Your task to perform on an android device: set the timer Image 0: 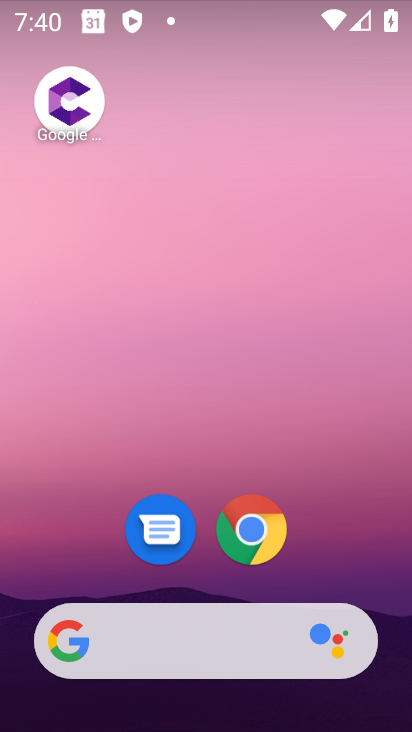
Step 0: drag from (29, 584) to (230, 139)
Your task to perform on an android device: set the timer Image 1: 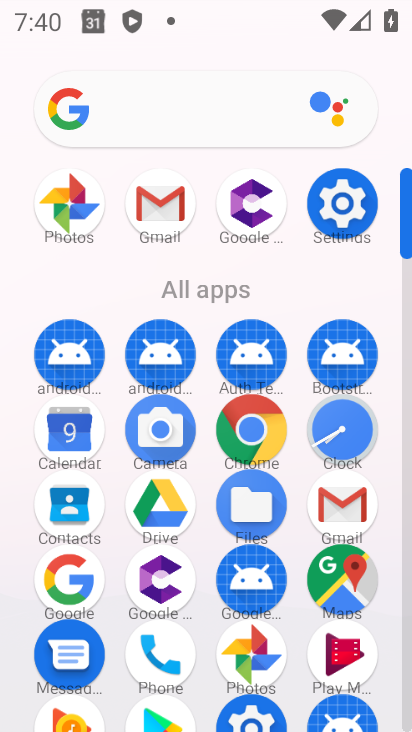
Step 1: click (339, 429)
Your task to perform on an android device: set the timer Image 2: 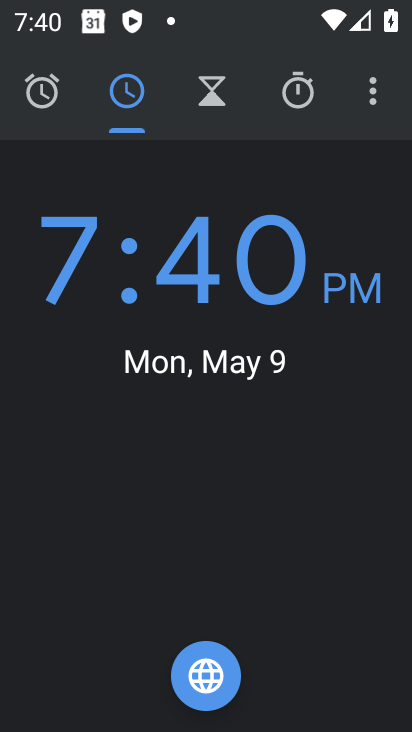
Step 2: click (196, 101)
Your task to perform on an android device: set the timer Image 3: 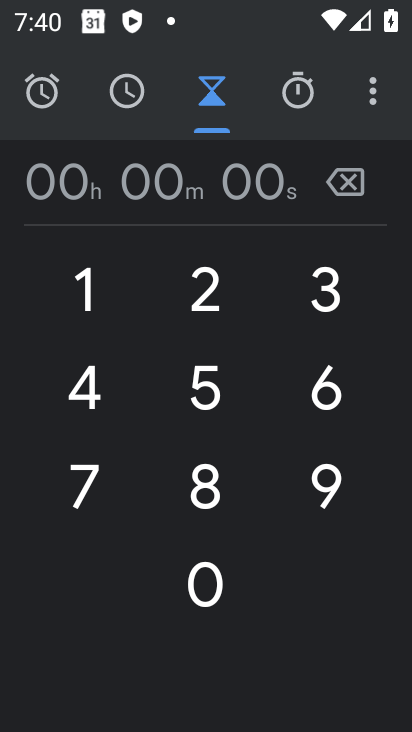
Step 3: click (203, 577)
Your task to perform on an android device: set the timer Image 4: 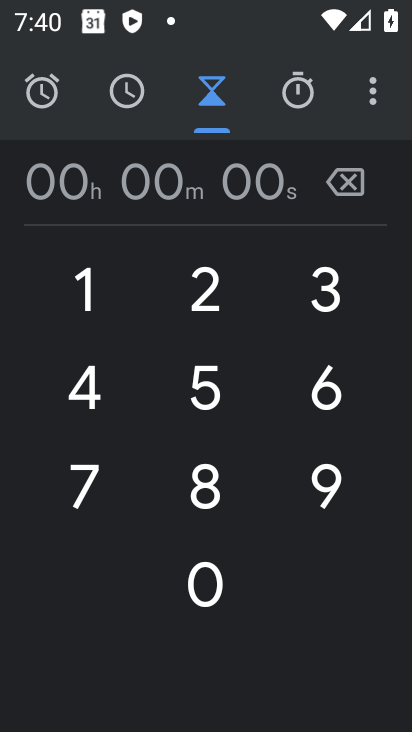
Step 4: click (206, 551)
Your task to perform on an android device: set the timer Image 5: 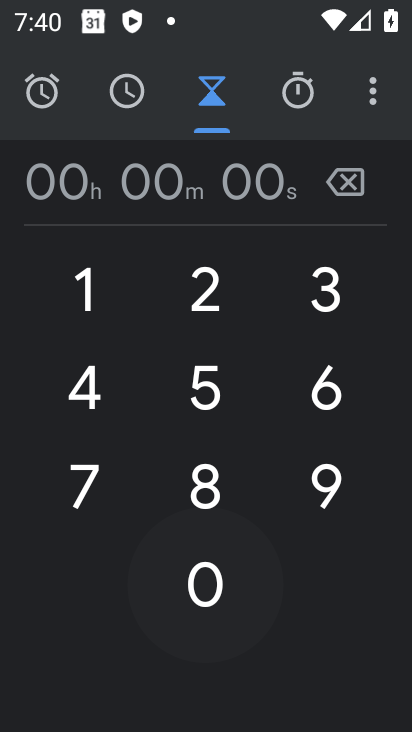
Step 5: click (222, 475)
Your task to perform on an android device: set the timer Image 6: 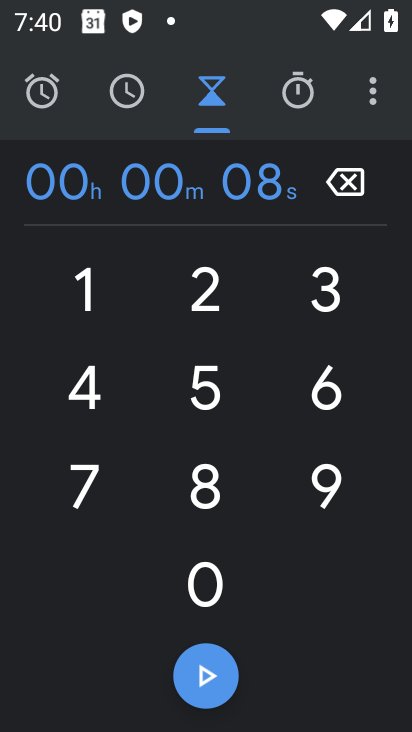
Step 6: click (196, 574)
Your task to perform on an android device: set the timer Image 7: 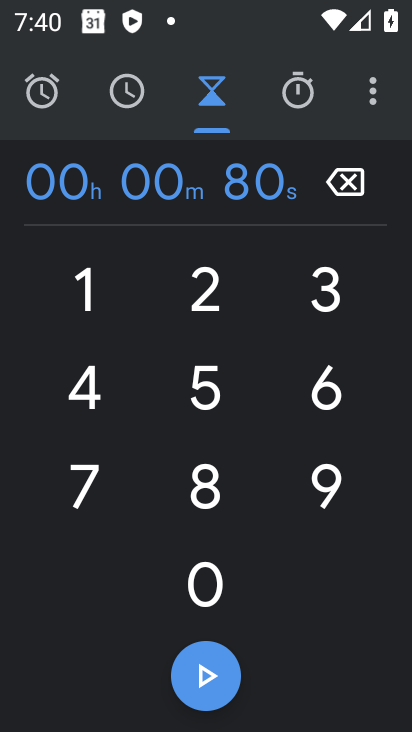
Step 7: click (196, 576)
Your task to perform on an android device: set the timer Image 8: 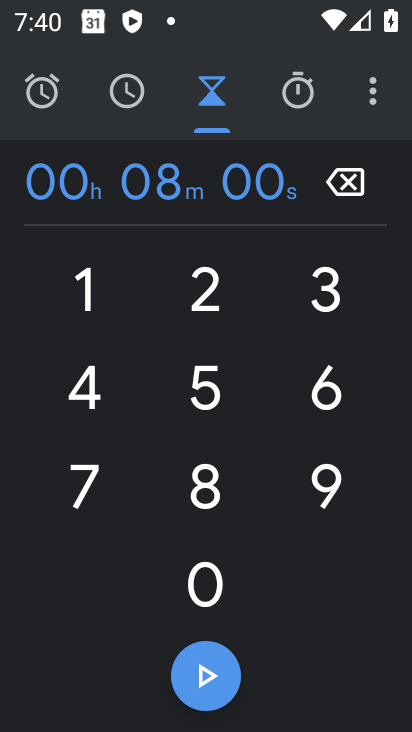
Step 8: click (196, 576)
Your task to perform on an android device: set the timer Image 9: 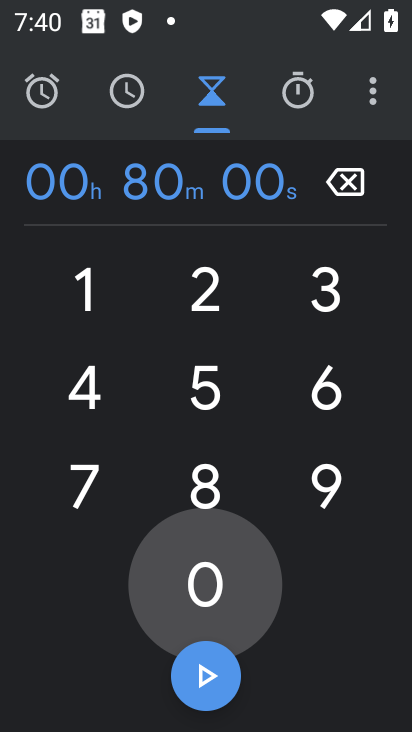
Step 9: click (196, 574)
Your task to perform on an android device: set the timer Image 10: 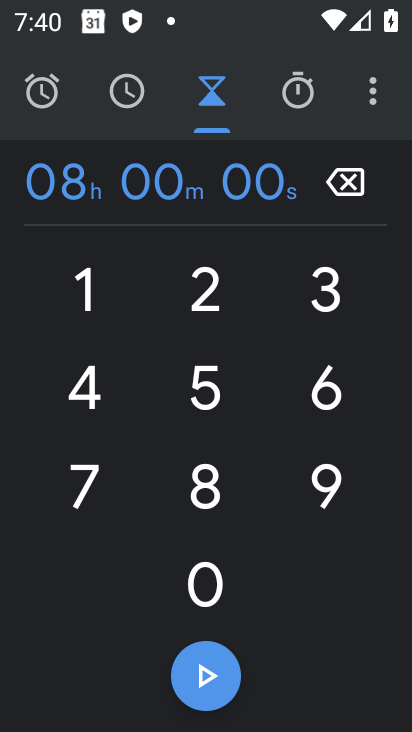
Step 10: click (219, 668)
Your task to perform on an android device: set the timer Image 11: 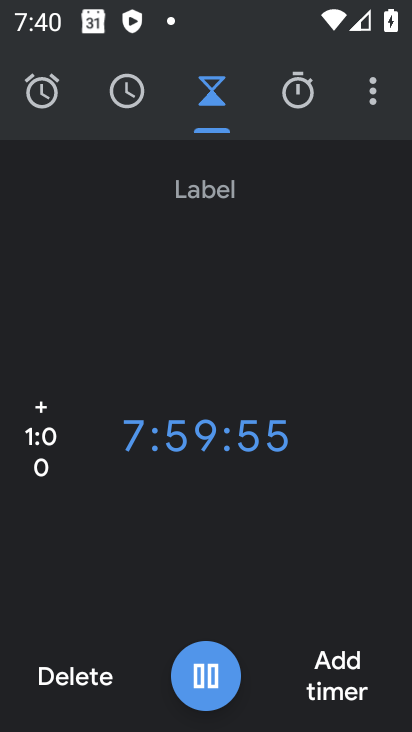
Step 11: task complete